Your task to perform on an android device: Open eBay Image 0: 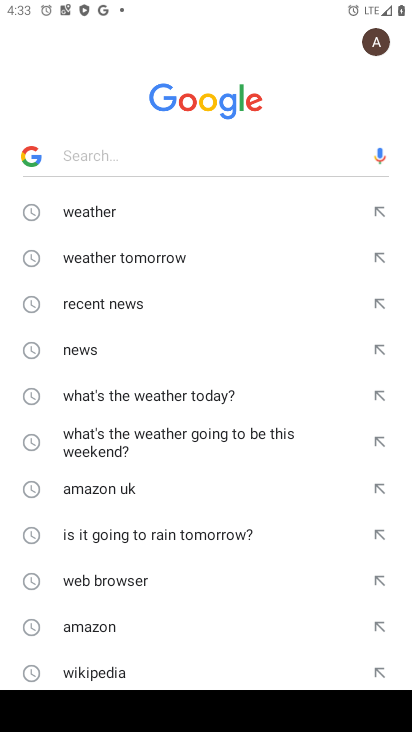
Step 0: drag from (208, 691) to (177, 182)
Your task to perform on an android device: Open eBay Image 1: 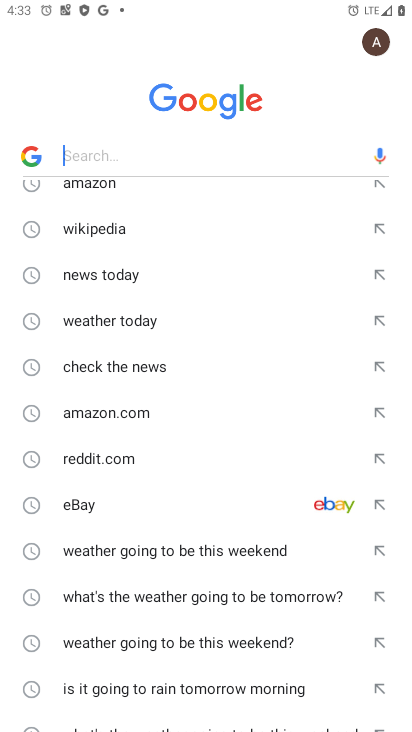
Step 1: press home button
Your task to perform on an android device: Open eBay Image 2: 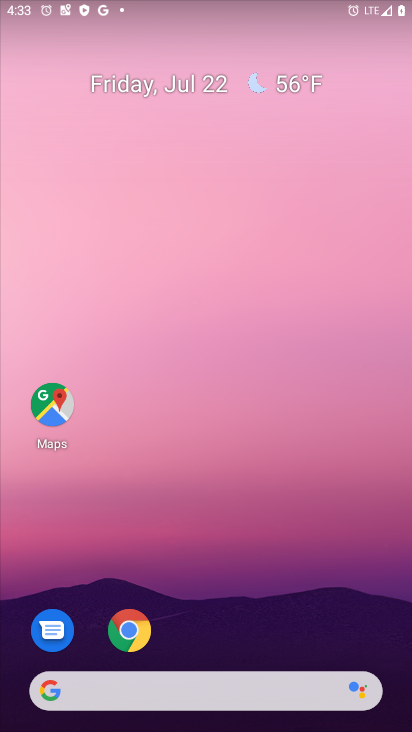
Step 2: click (115, 652)
Your task to perform on an android device: Open eBay Image 3: 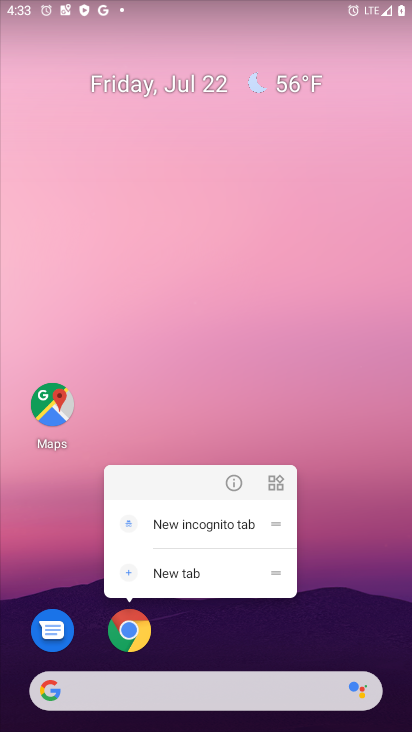
Step 3: click (119, 646)
Your task to perform on an android device: Open eBay Image 4: 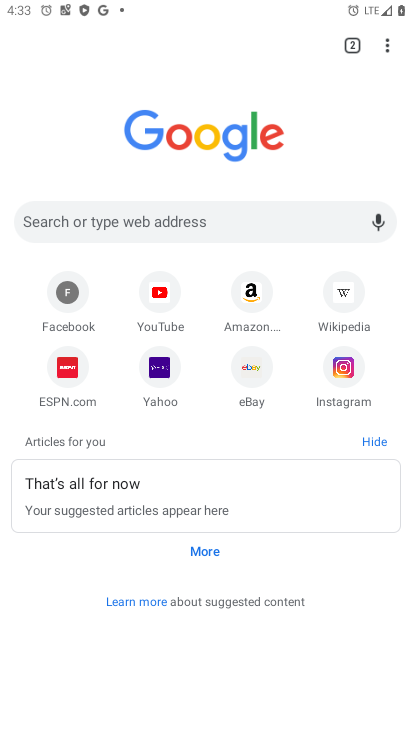
Step 4: click (255, 365)
Your task to perform on an android device: Open eBay Image 5: 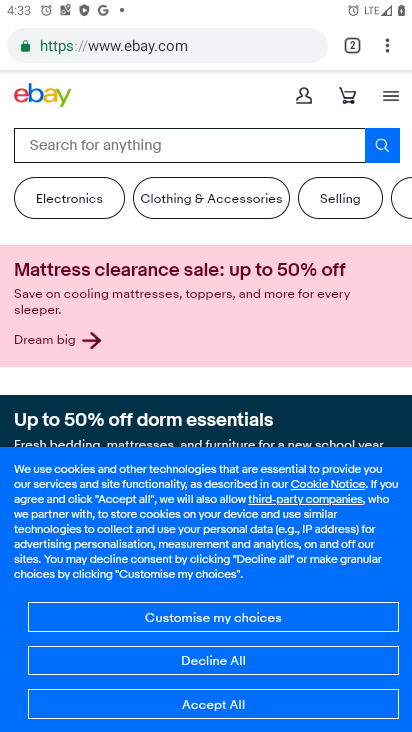
Step 5: task complete